Your task to perform on an android device: Go to ESPN.com Image 0: 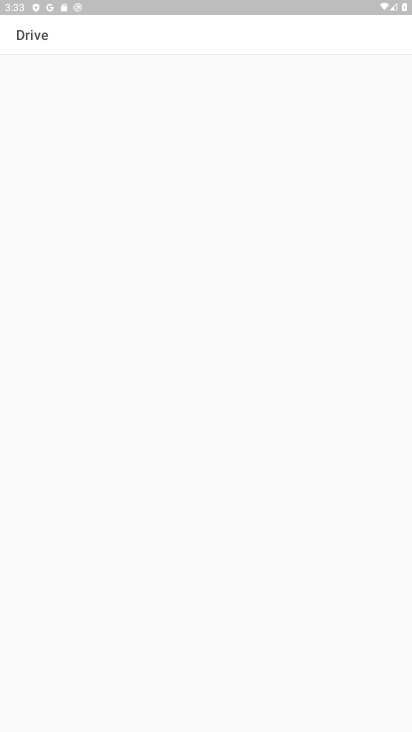
Step 0: press home button
Your task to perform on an android device: Go to ESPN.com Image 1: 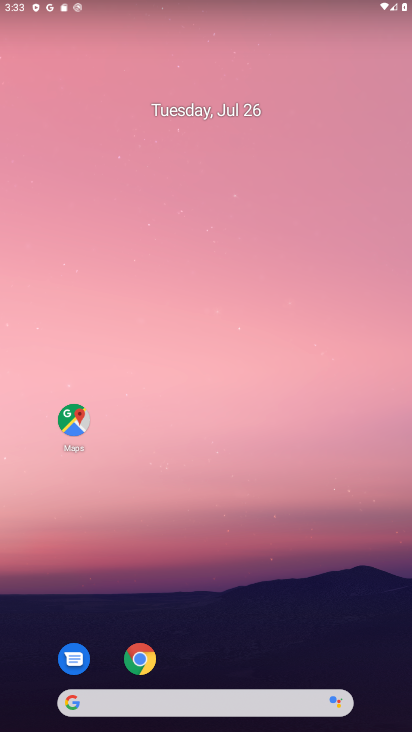
Step 1: drag from (264, 545) to (262, 49)
Your task to perform on an android device: Go to ESPN.com Image 2: 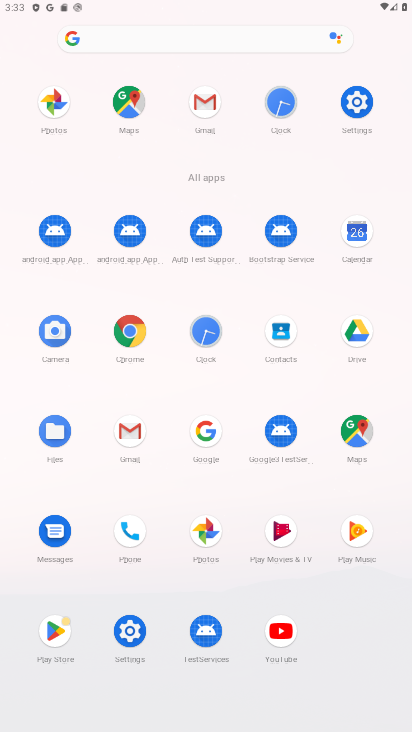
Step 2: click (116, 324)
Your task to perform on an android device: Go to ESPN.com Image 3: 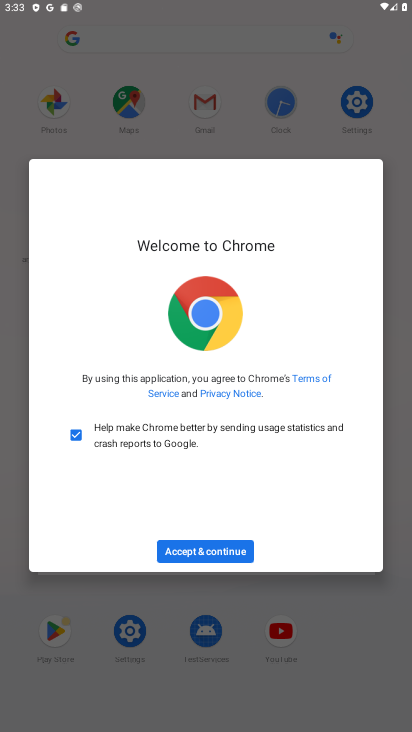
Step 3: click (205, 543)
Your task to perform on an android device: Go to ESPN.com Image 4: 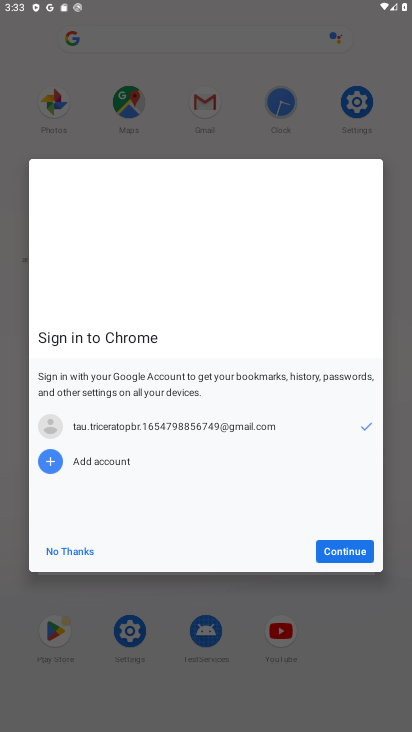
Step 4: drag from (306, 550) to (363, 553)
Your task to perform on an android device: Go to ESPN.com Image 5: 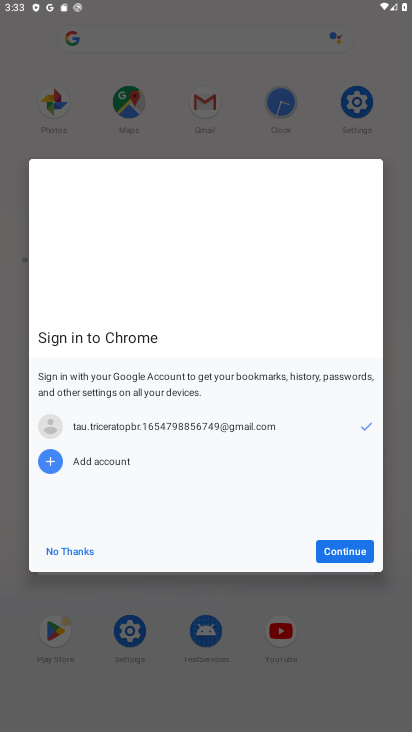
Step 5: click (360, 553)
Your task to perform on an android device: Go to ESPN.com Image 6: 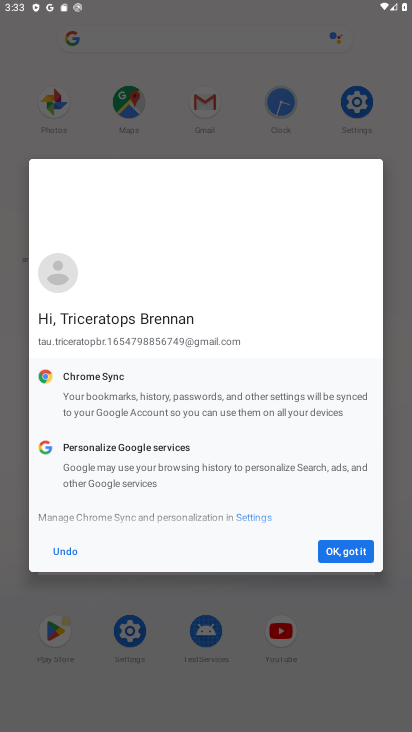
Step 6: click (346, 553)
Your task to perform on an android device: Go to ESPN.com Image 7: 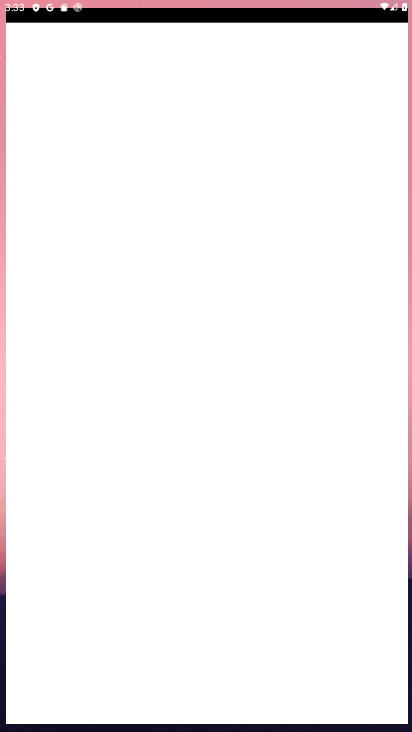
Step 7: click (346, 553)
Your task to perform on an android device: Go to ESPN.com Image 8: 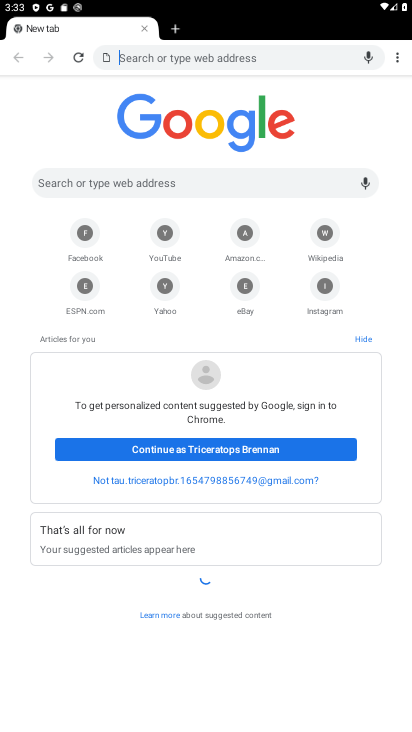
Step 8: click (269, 54)
Your task to perform on an android device: Go to ESPN.com Image 9: 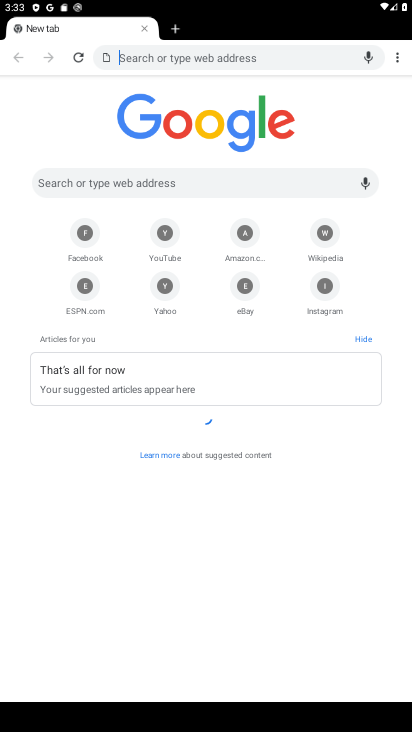
Step 9: click (81, 290)
Your task to perform on an android device: Go to ESPN.com Image 10: 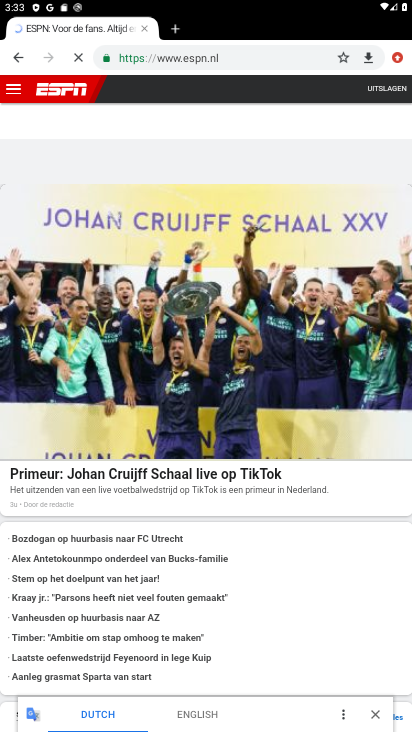
Step 10: task complete